Your task to perform on an android device: turn off priority inbox in the gmail app Image 0: 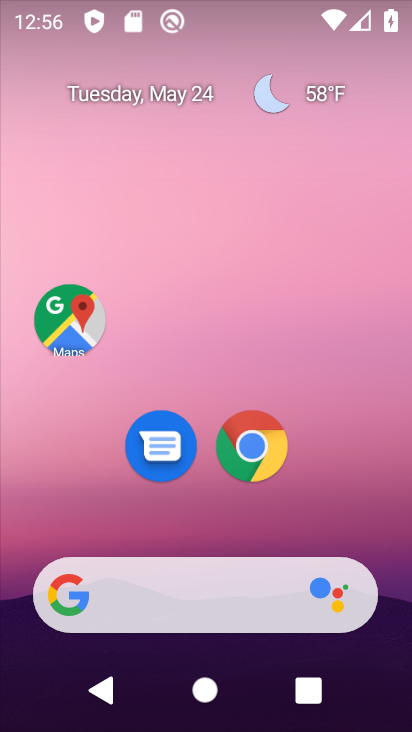
Step 0: drag from (358, 545) to (370, 96)
Your task to perform on an android device: turn off priority inbox in the gmail app Image 1: 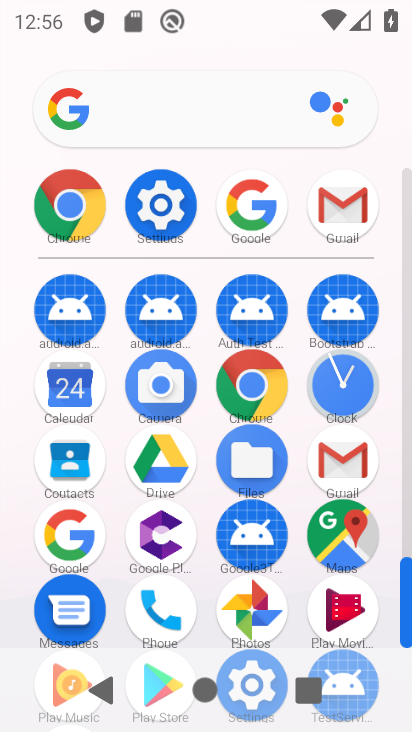
Step 1: click (359, 477)
Your task to perform on an android device: turn off priority inbox in the gmail app Image 2: 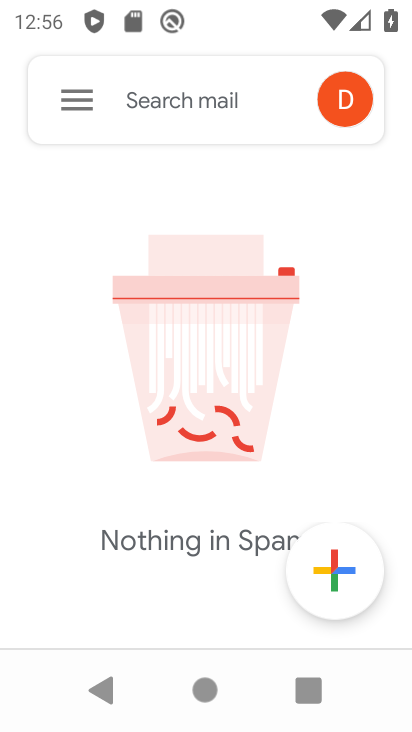
Step 2: click (87, 110)
Your task to perform on an android device: turn off priority inbox in the gmail app Image 3: 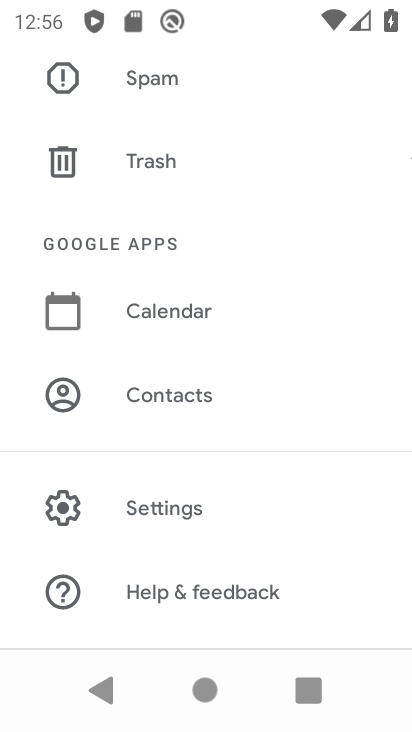
Step 3: click (181, 517)
Your task to perform on an android device: turn off priority inbox in the gmail app Image 4: 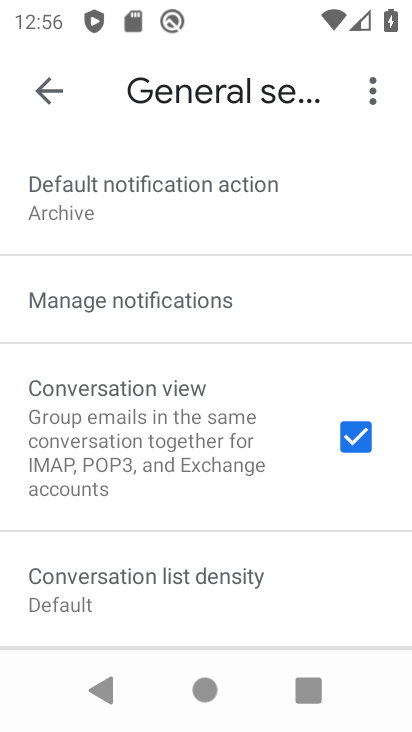
Step 4: click (53, 96)
Your task to perform on an android device: turn off priority inbox in the gmail app Image 5: 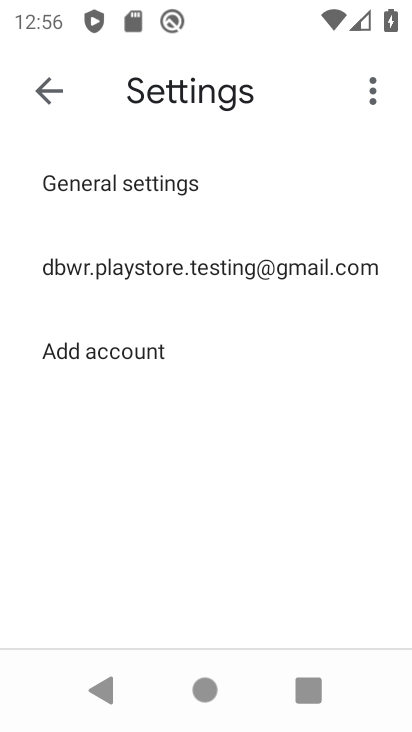
Step 5: click (144, 268)
Your task to perform on an android device: turn off priority inbox in the gmail app Image 6: 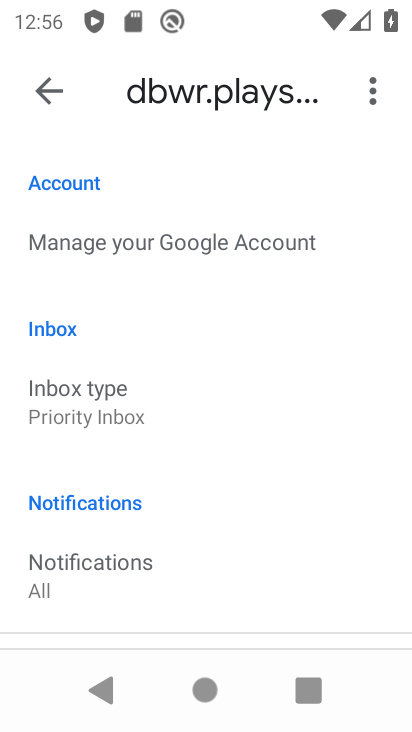
Step 6: click (140, 417)
Your task to perform on an android device: turn off priority inbox in the gmail app Image 7: 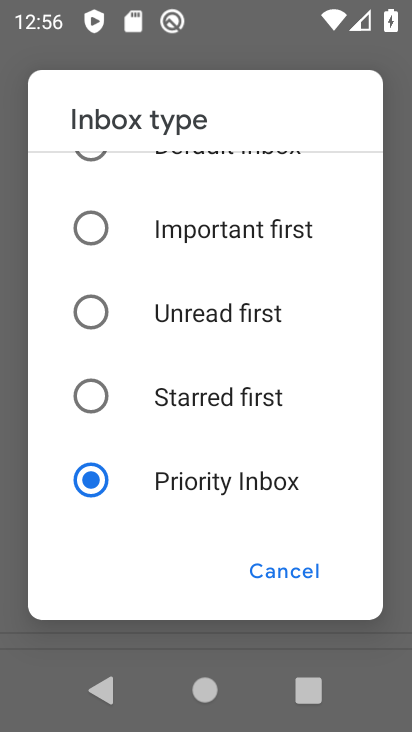
Step 7: click (135, 404)
Your task to perform on an android device: turn off priority inbox in the gmail app Image 8: 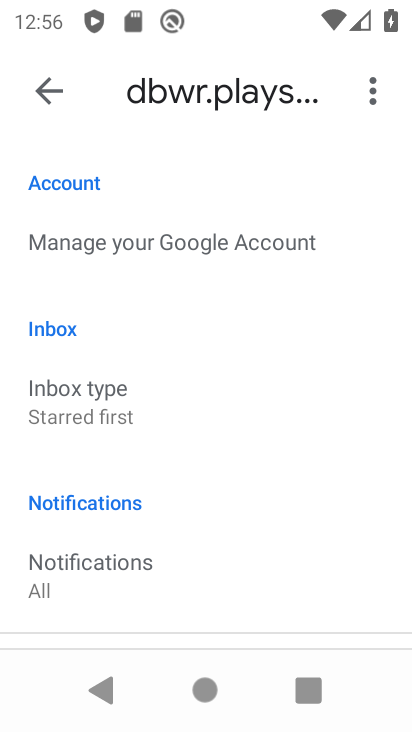
Step 8: task complete